Your task to perform on an android device: Show me popular videos on Youtube Image 0: 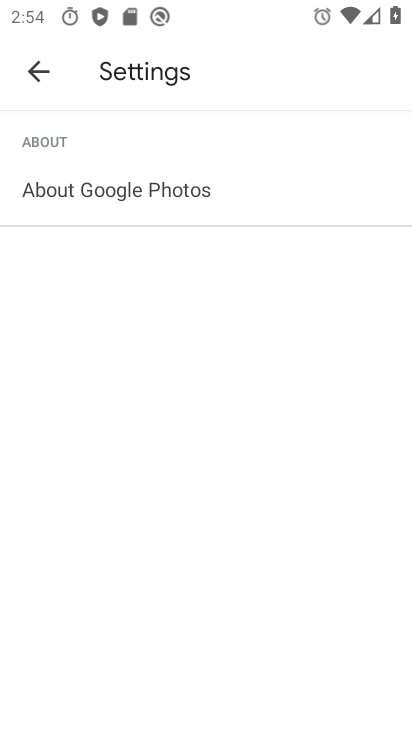
Step 0: press home button
Your task to perform on an android device: Show me popular videos on Youtube Image 1: 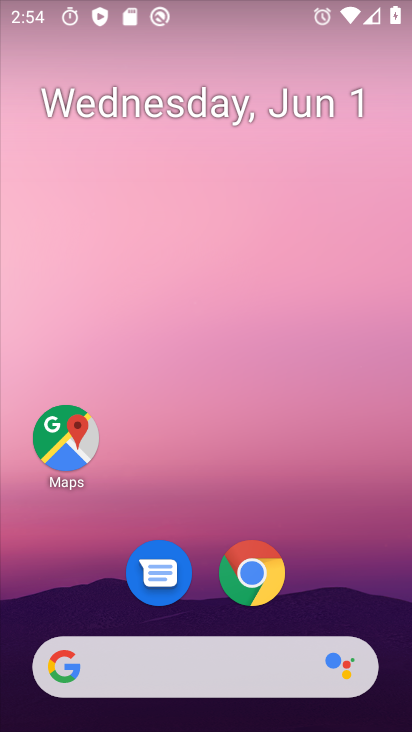
Step 1: drag from (200, 614) to (185, 234)
Your task to perform on an android device: Show me popular videos on Youtube Image 2: 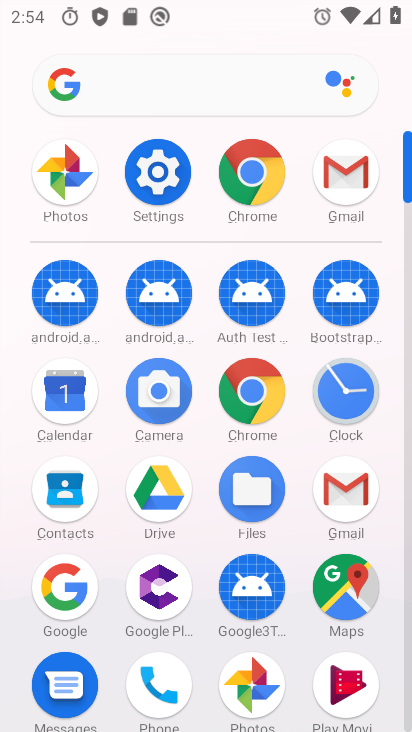
Step 2: drag from (208, 648) to (185, 275)
Your task to perform on an android device: Show me popular videos on Youtube Image 3: 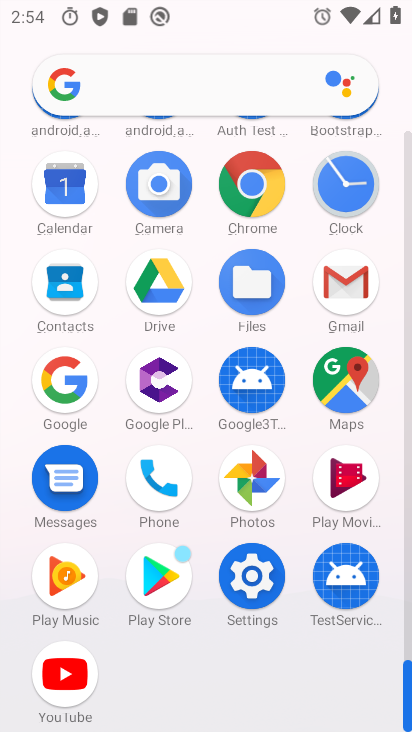
Step 3: click (57, 653)
Your task to perform on an android device: Show me popular videos on Youtube Image 4: 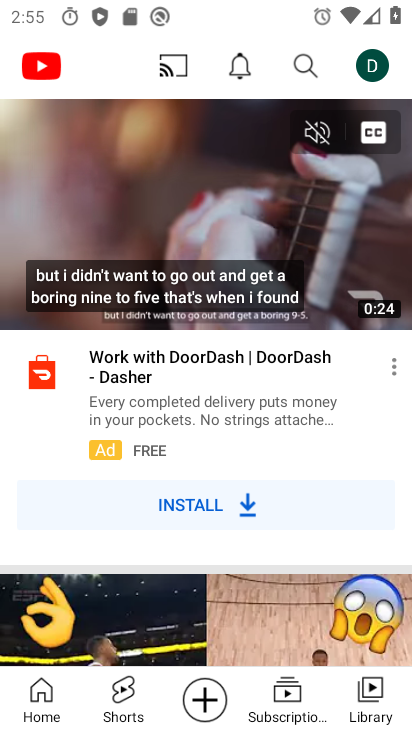
Step 4: click (308, 65)
Your task to perform on an android device: Show me popular videos on Youtube Image 5: 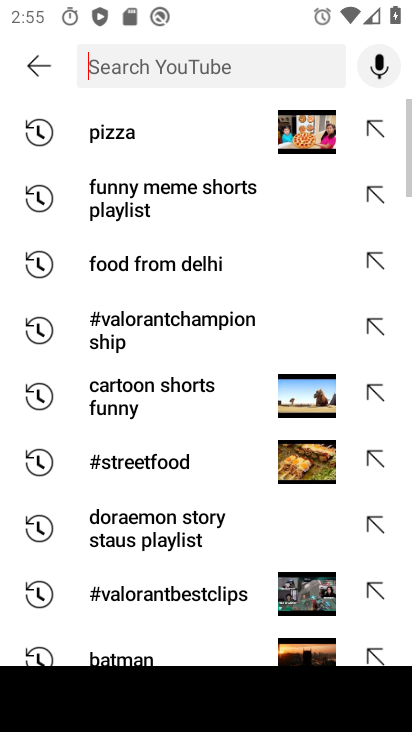
Step 5: click (161, 80)
Your task to perform on an android device: Show me popular videos on Youtube Image 6: 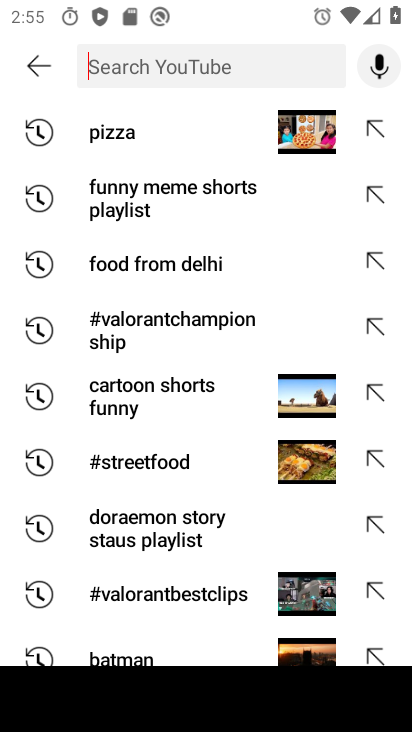
Step 6: type "popular videos"
Your task to perform on an android device: Show me popular videos on Youtube Image 7: 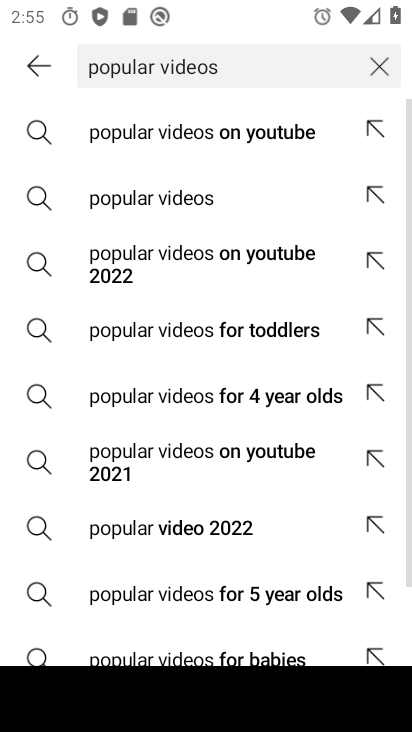
Step 7: click (184, 137)
Your task to perform on an android device: Show me popular videos on Youtube Image 8: 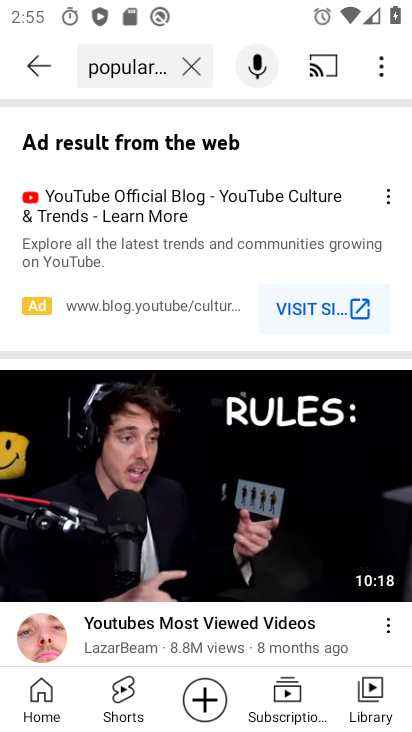
Step 8: task complete